Your task to perform on an android device: turn off translation in the chrome app Image 0: 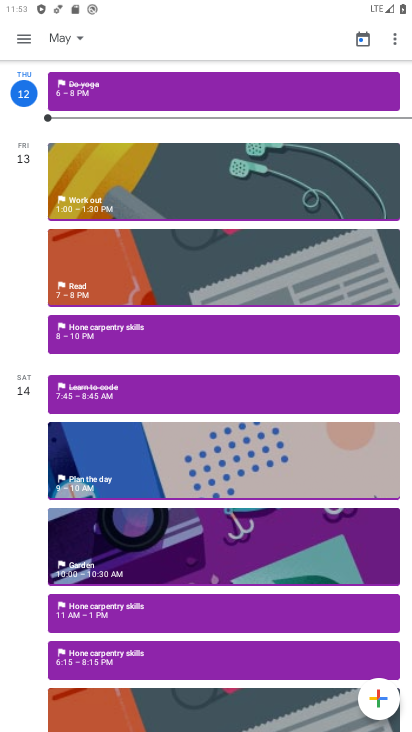
Step 0: press home button
Your task to perform on an android device: turn off translation in the chrome app Image 1: 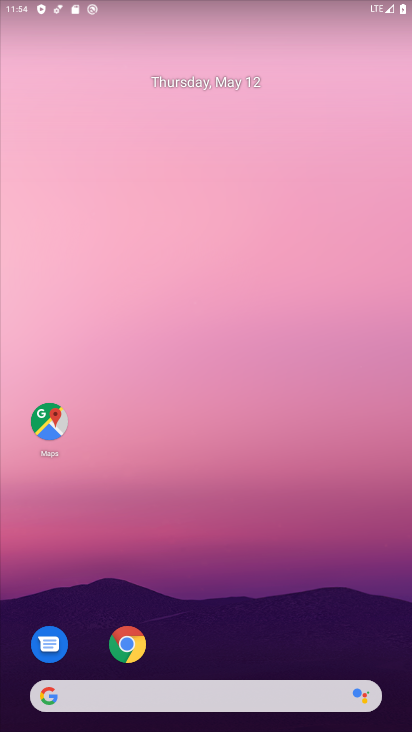
Step 1: drag from (310, 657) to (216, 63)
Your task to perform on an android device: turn off translation in the chrome app Image 2: 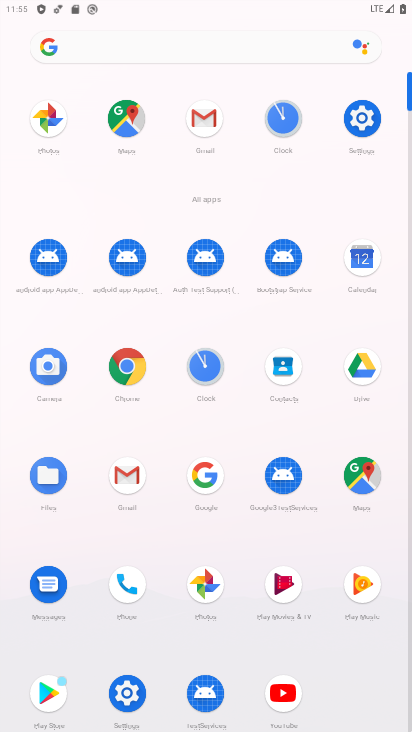
Step 2: click (147, 360)
Your task to perform on an android device: turn off translation in the chrome app Image 3: 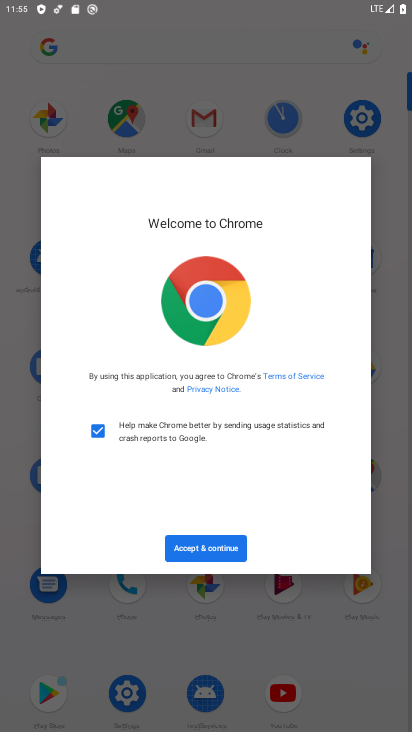
Step 3: click (197, 538)
Your task to perform on an android device: turn off translation in the chrome app Image 4: 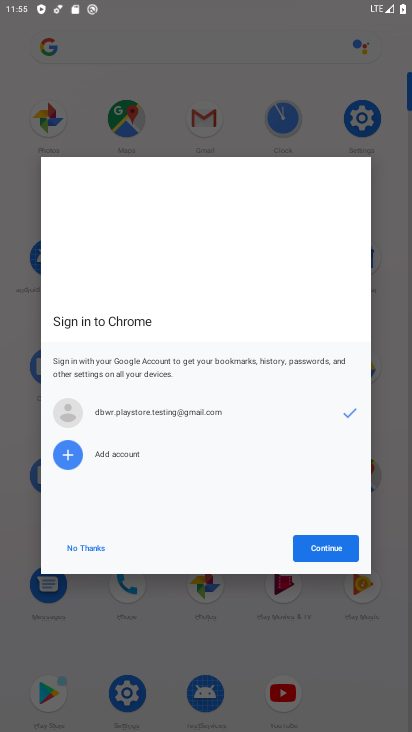
Step 4: click (350, 550)
Your task to perform on an android device: turn off translation in the chrome app Image 5: 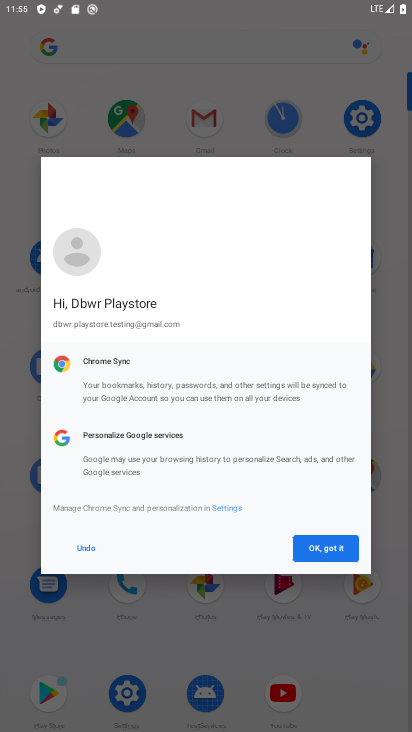
Step 5: click (338, 547)
Your task to perform on an android device: turn off translation in the chrome app Image 6: 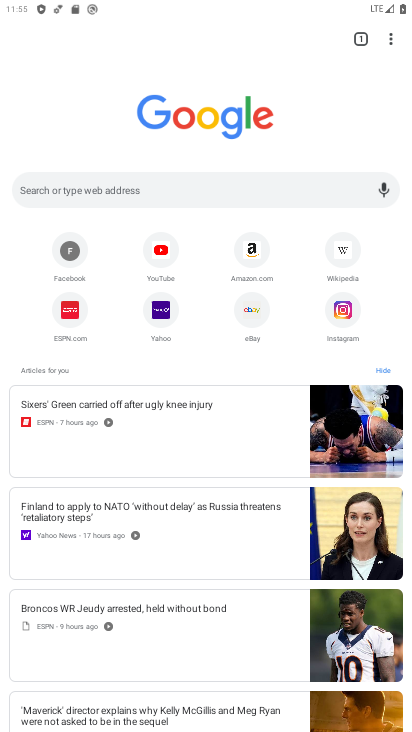
Step 6: click (395, 33)
Your task to perform on an android device: turn off translation in the chrome app Image 7: 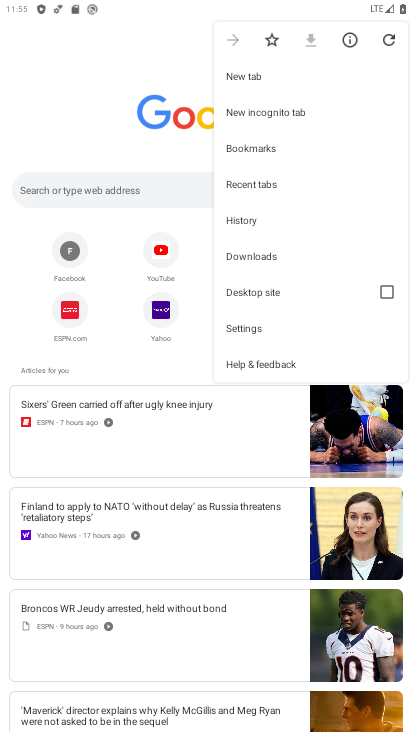
Step 7: click (260, 333)
Your task to perform on an android device: turn off translation in the chrome app Image 8: 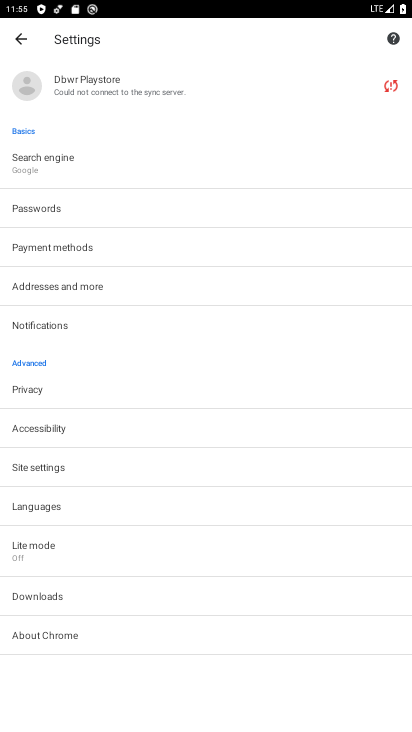
Step 8: click (84, 517)
Your task to perform on an android device: turn off translation in the chrome app Image 9: 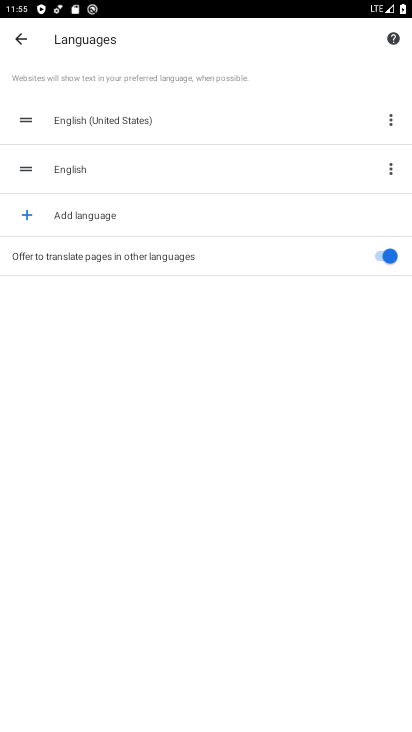
Step 9: click (337, 256)
Your task to perform on an android device: turn off translation in the chrome app Image 10: 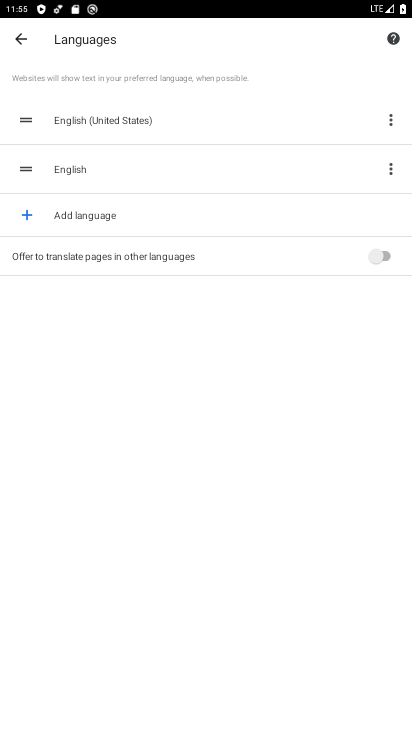
Step 10: task complete